Your task to perform on an android device: Show me popular games on the Play Store Image 0: 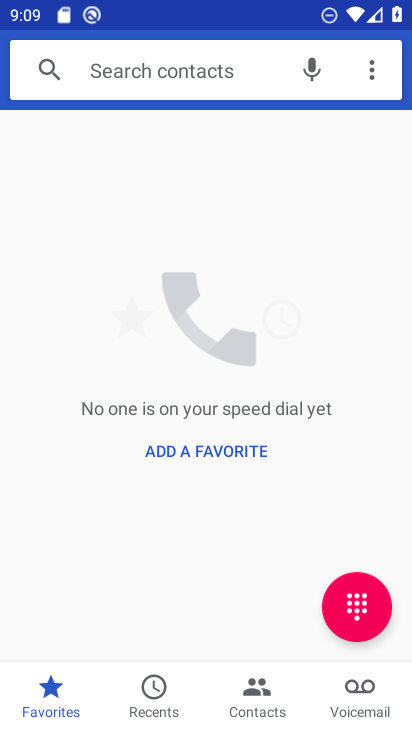
Step 0: press home button
Your task to perform on an android device: Show me popular games on the Play Store Image 1: 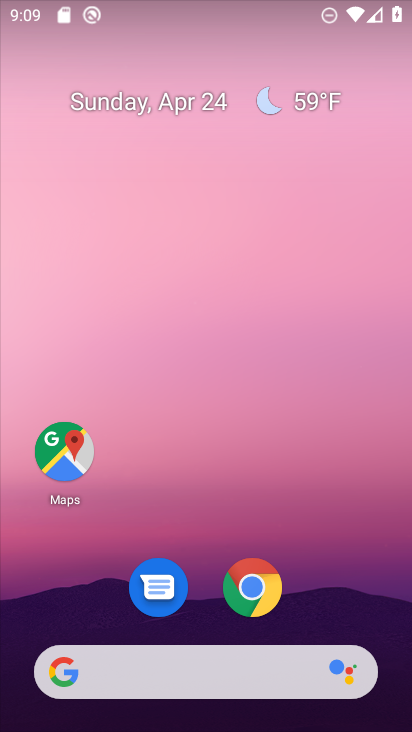
Step 1: drag from (183, 499) to (189, 0)
Your task to perform on an android device: Show me popular games on the Play Store Image 2: 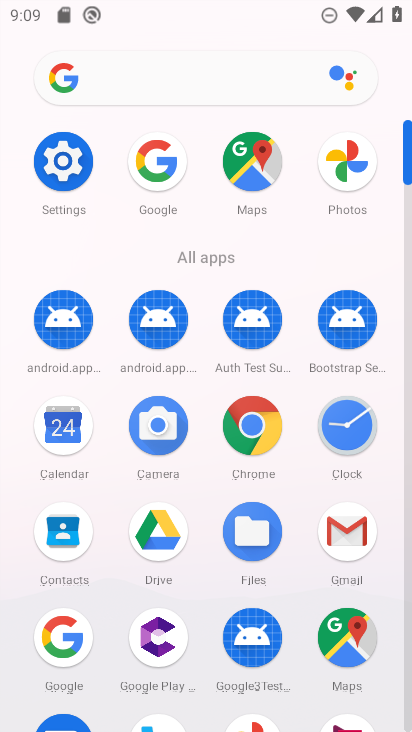
Step 2: drag from (196, 498) to (224, 271)
Your task to perform on an android device: Show me popular games on the Play Store Image 3: 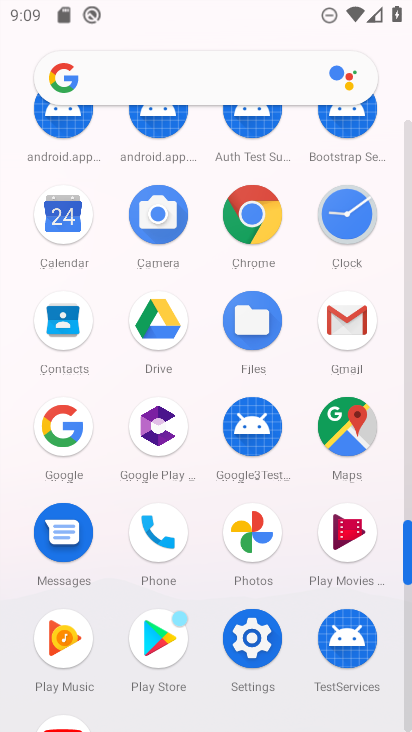
Step 3: click (162, 635)
Your task to perform on an android device: Show me popular games on the Play Store Image 4: 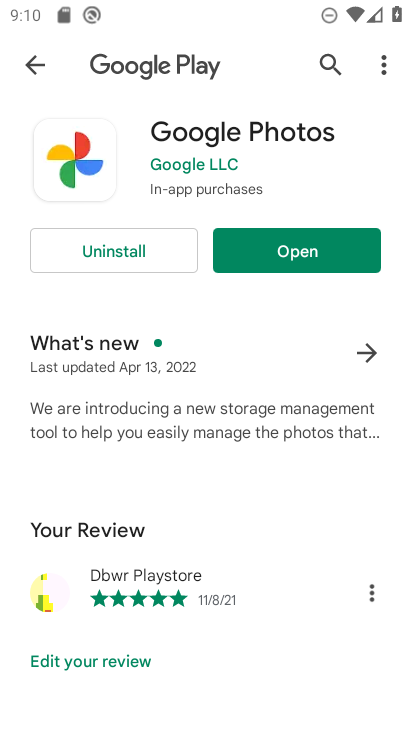
Step 4: press back button
Your task to perform on an android device: Show me popular games on the Play Store Image 5: 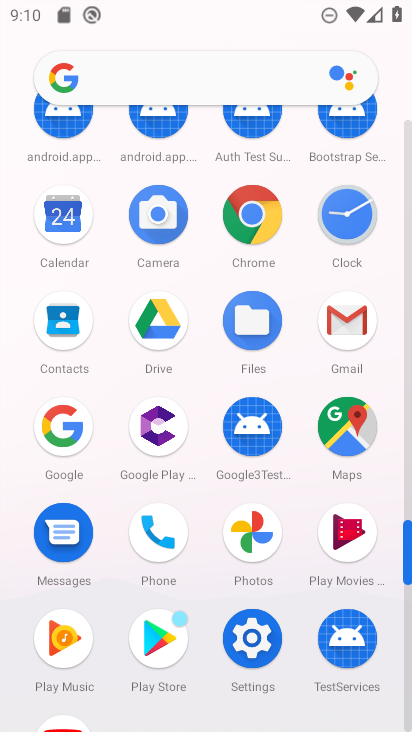
Step 5: click (161, 636)
Your task to perform on an android device: Show me popular games on the Play Store Image 6: 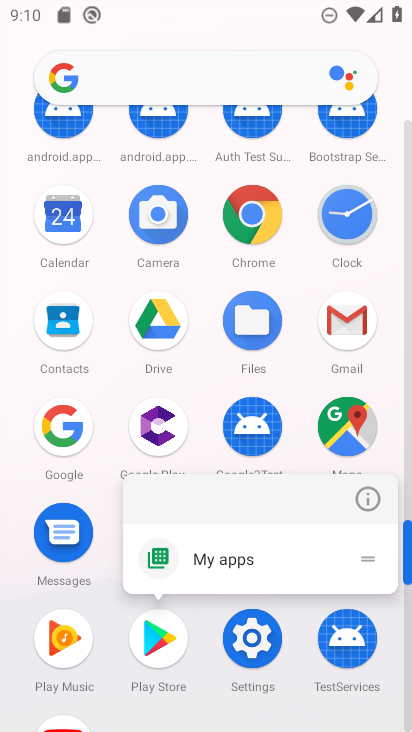
Step 6: click (161, 636)
Your task to perform on an android device: Show me popular games on the Play Store Image 7: 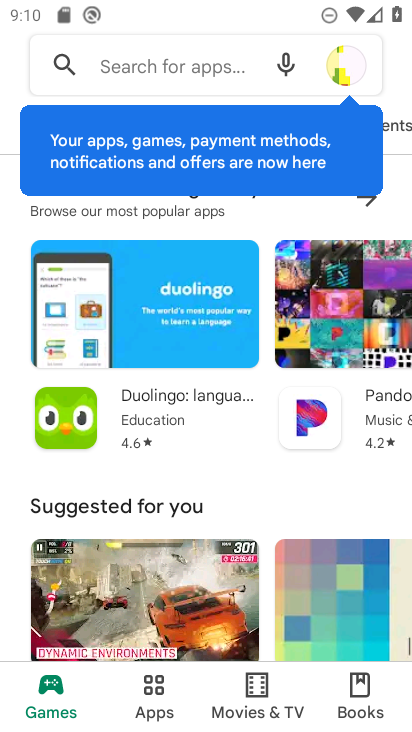
Step 7: click (235, 70)
Your task to perform on an android device: Show me popular games on the Play Store Image 8: 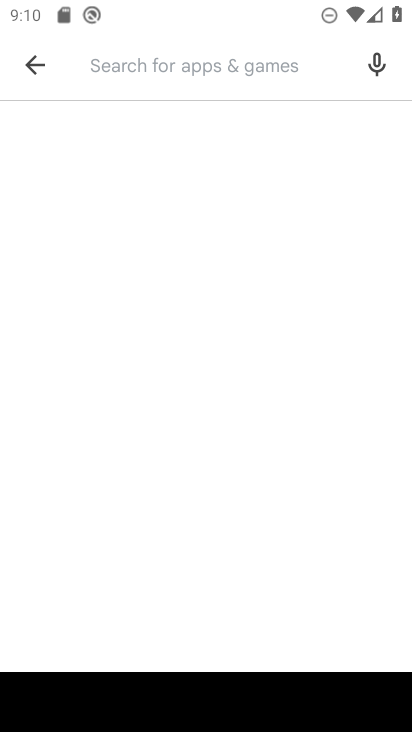
Step 8: type "popular games"
Your task to perform on an android device: Show me popular games on the Play Store Image 9: 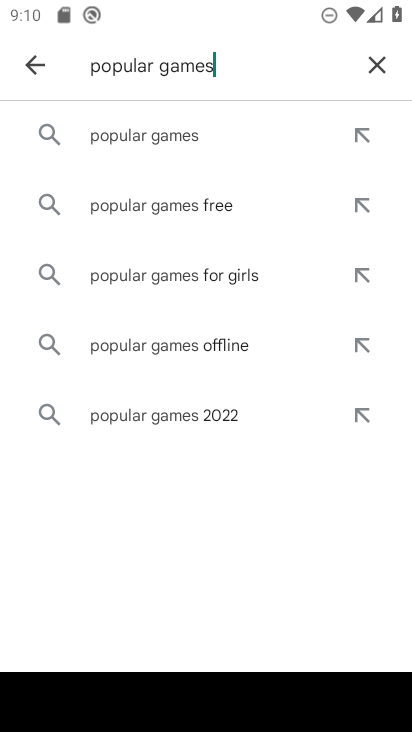
Step 9: click (160, 128)
Your task to perform on an android device: Show me popular games on the Play Store Image 10: 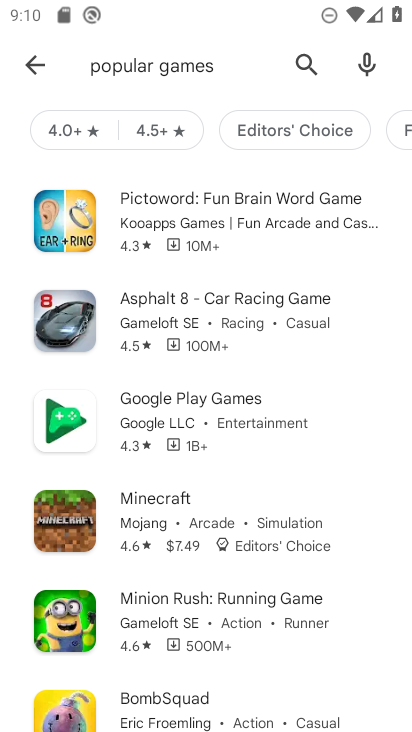
Step 10: task complete